Your task to perform on an android device: Show me productivity apps on the Play Store Image 0: 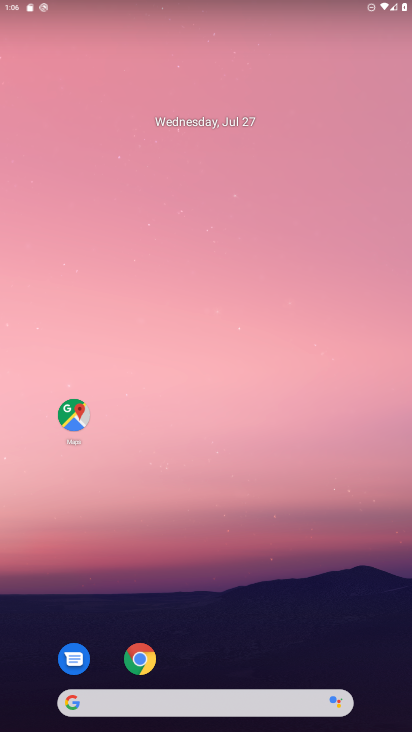
Step 0: drag from (261, 641) to (159, 270)
Your task to perform on an android device: Show me productivity apps on the Play Store Image 1: 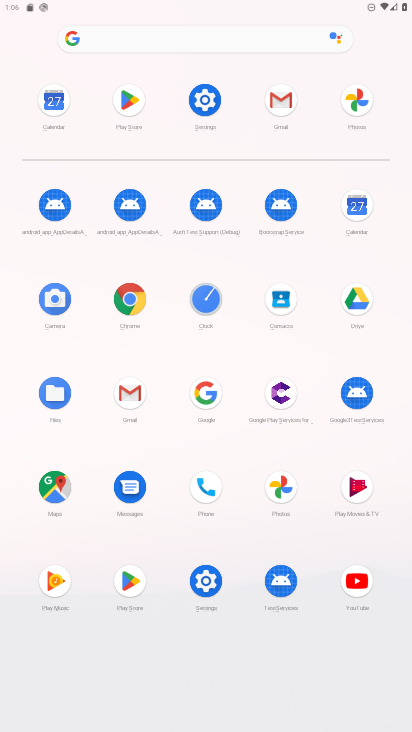
Step 1: click (132, 565)
Your task to perform on an android device: Show me productivity apps on the Play Store Image 2: 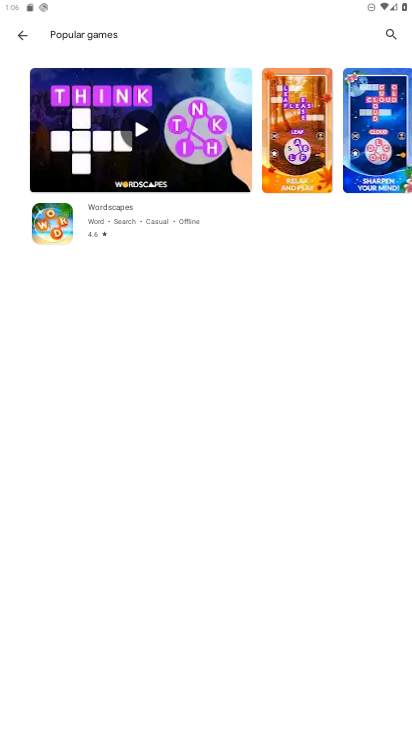
Step 2: click (25, 38)
Your task to perform on an android device: Show me productivity apps on the Play Store Image 3: 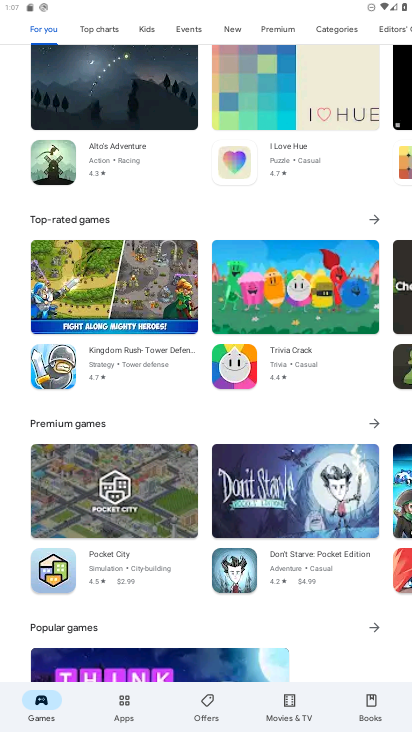
Step 3: click (131, 697)
Your task to perform on an android device: Show me productivity apps on the Play Store Image 4: 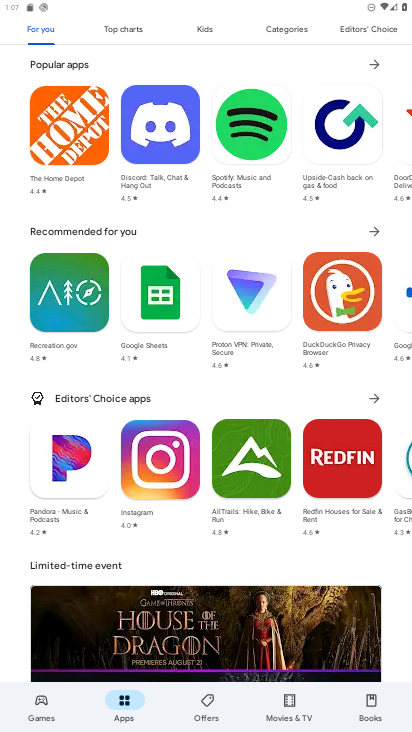
Step 4: drag from (379, 26) to (187, 31)
Your task to perform on an android device: Show me productivity apps on the Play Store Image 5: 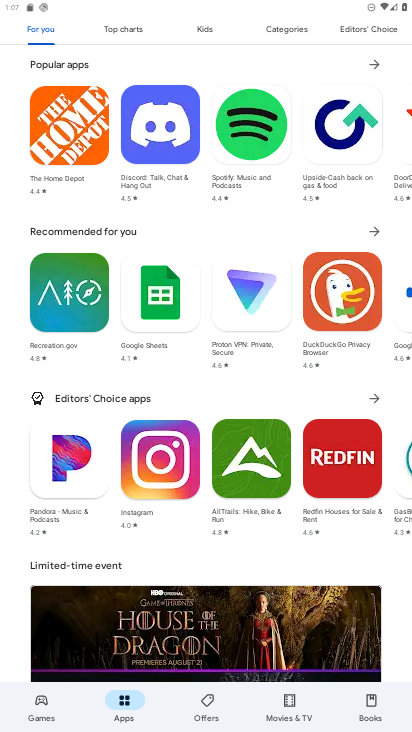
Step 5: drag from (335, 20) to (164, 35)
Your task to perform on an android device: Show me productivity apps on the Play Store Image 6: 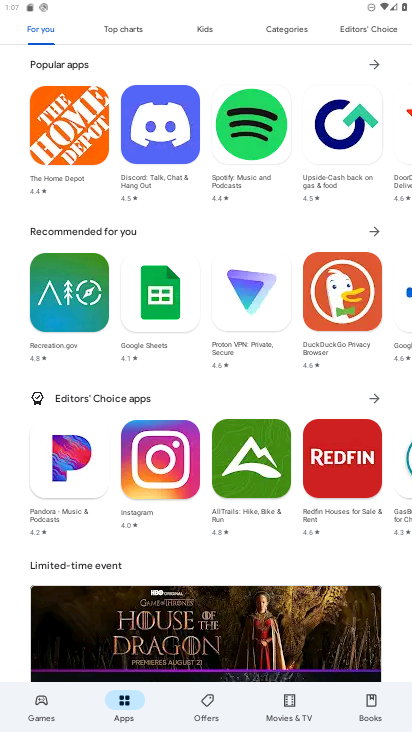
Step 6: drag from (206, 558) to (206, 273)
Your task to perform on an android device: Show me productivity apps on the Play Store Image 7: 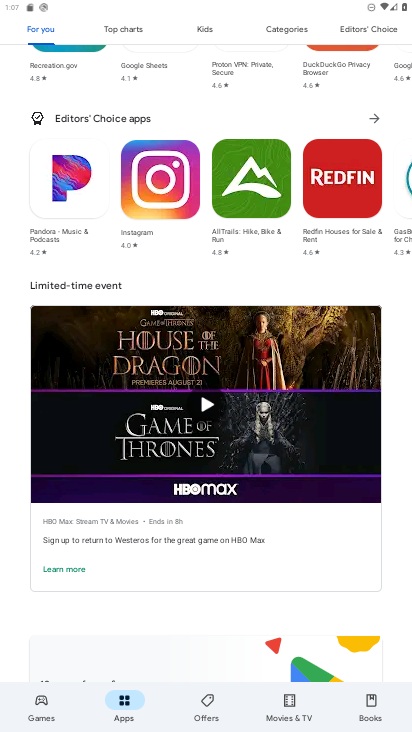
Step 7: drag from (159, 606) to (179, 317)
Your task to perform on an android device: Show me productivity apps on the Play Store Image 8: 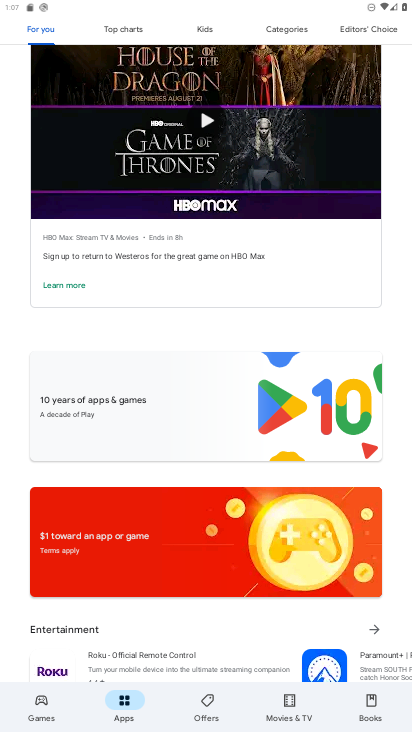
Step 8: drag from (121, 636) to (152, 251)
Your task to perform on an android device: Show me productivity apps on the Play Store Image 9: 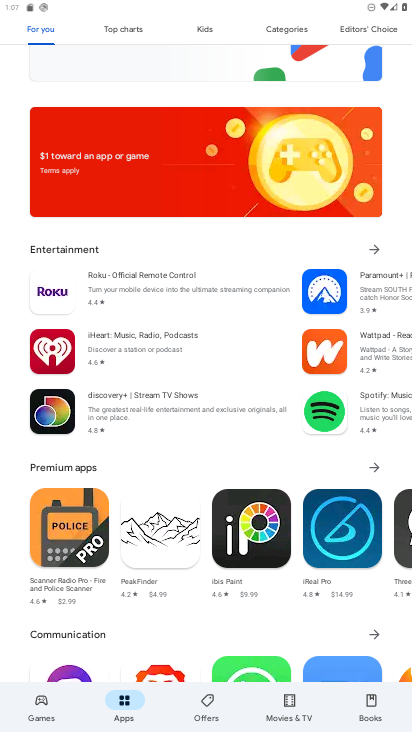
Step 9: drag from (153, 625) to (202, 0)
Your task to perform on an android device: Show me productivity apps on the Play Store Image 10: 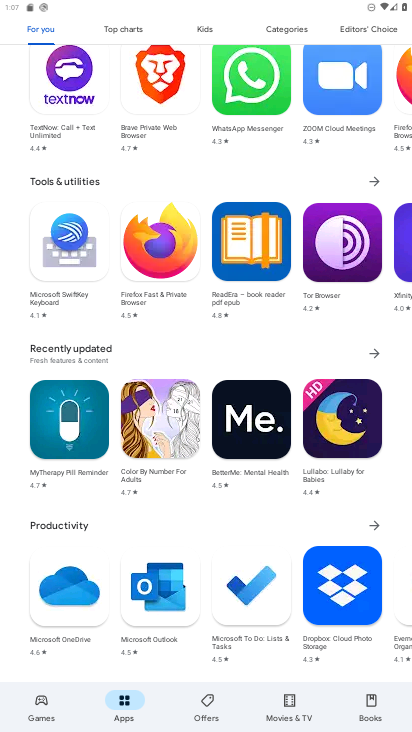
Step 10: click (370, 519)
Your task to perform on an android device: Show me productivity apps on the Play Store Image 11: 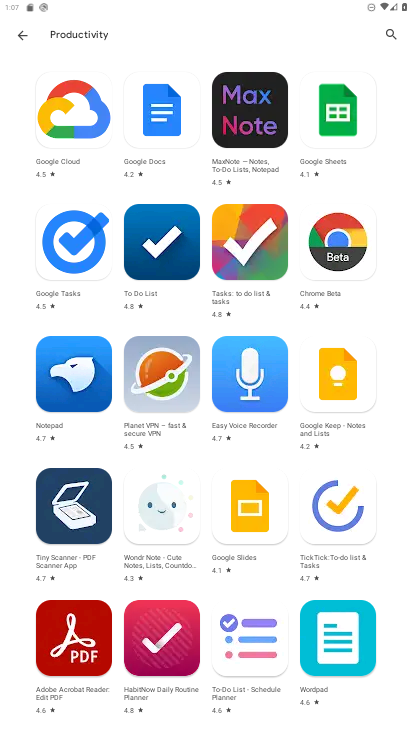
Step 11: task complete